Your task to perform on an android device: Open network settings Image 0: 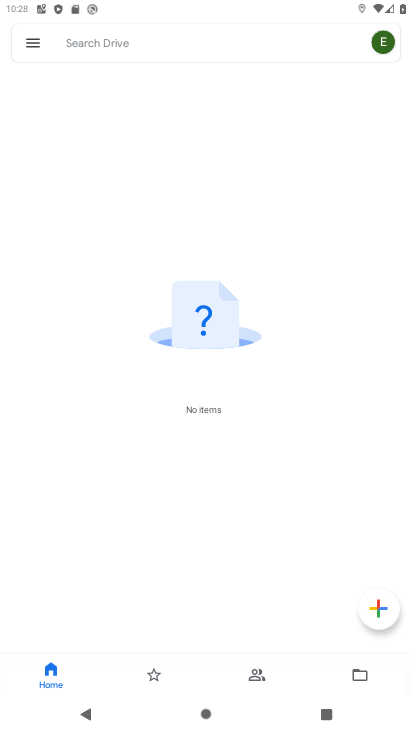
Step 0: drag from (187, 641) to (63, 65)
Your task to perform on an android device: Open network settings Image 1: 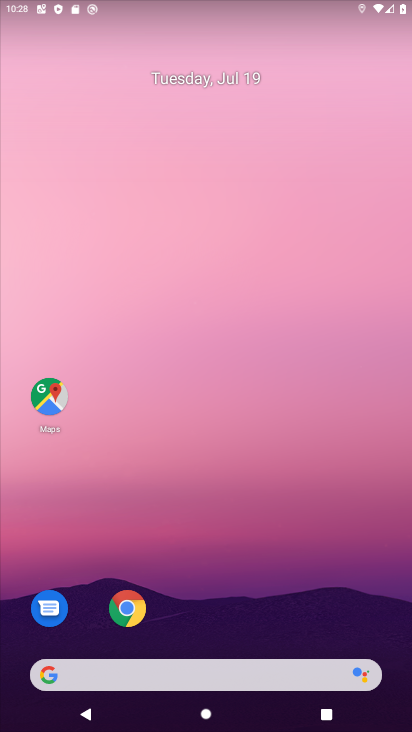
Step 1: click (49, 98)
Your task to perform on an android device: Open network settings Image 2: 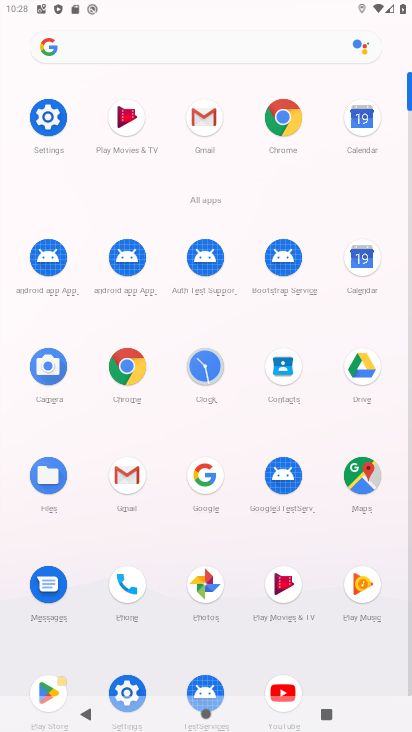
Step 2: click (82, 187)
Your task to perform on an android device: Open network settings Image 3: 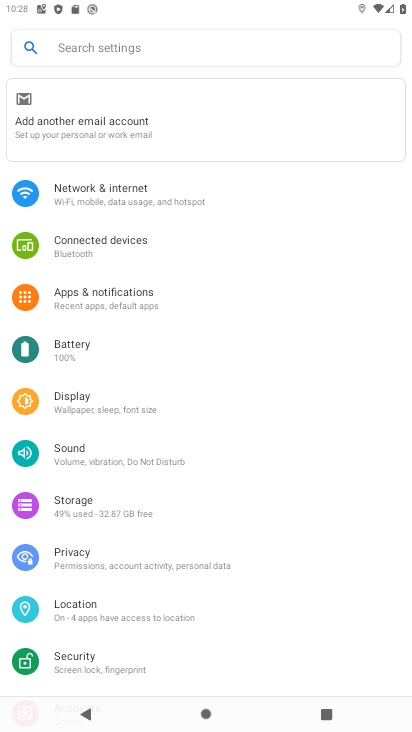
Step 3: click (63, 130)
Your task to perform on an android device: Open network settings Image 4: 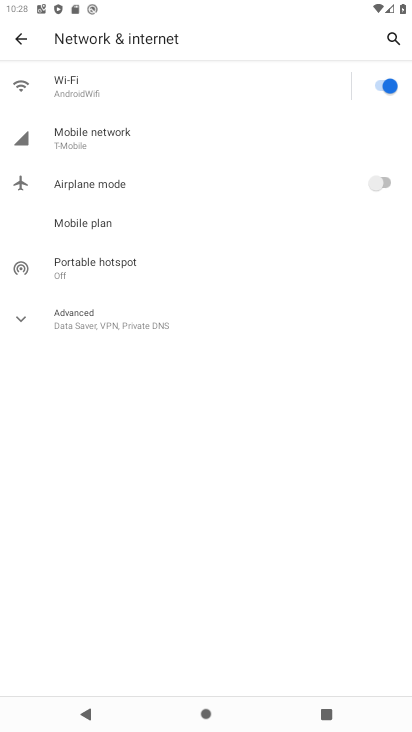
Step 4: task complete